Your task to perform on an android device: open app "Venmo" (install if not already installed) and go to login screen Image 0: 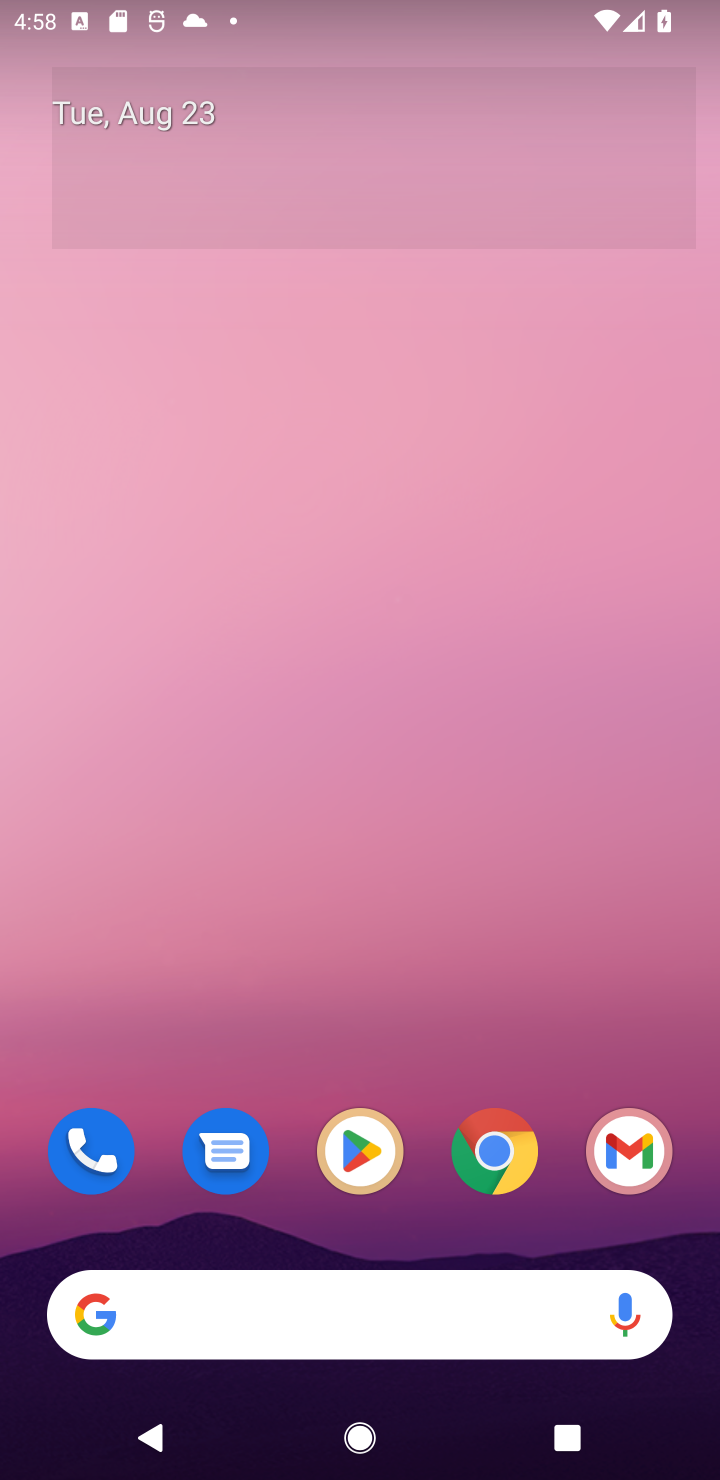
Step 0: click (356, 1155)
Your task to perform on an android device: open app "Venmo" (install if not already installed) and go to login screen Image 1: 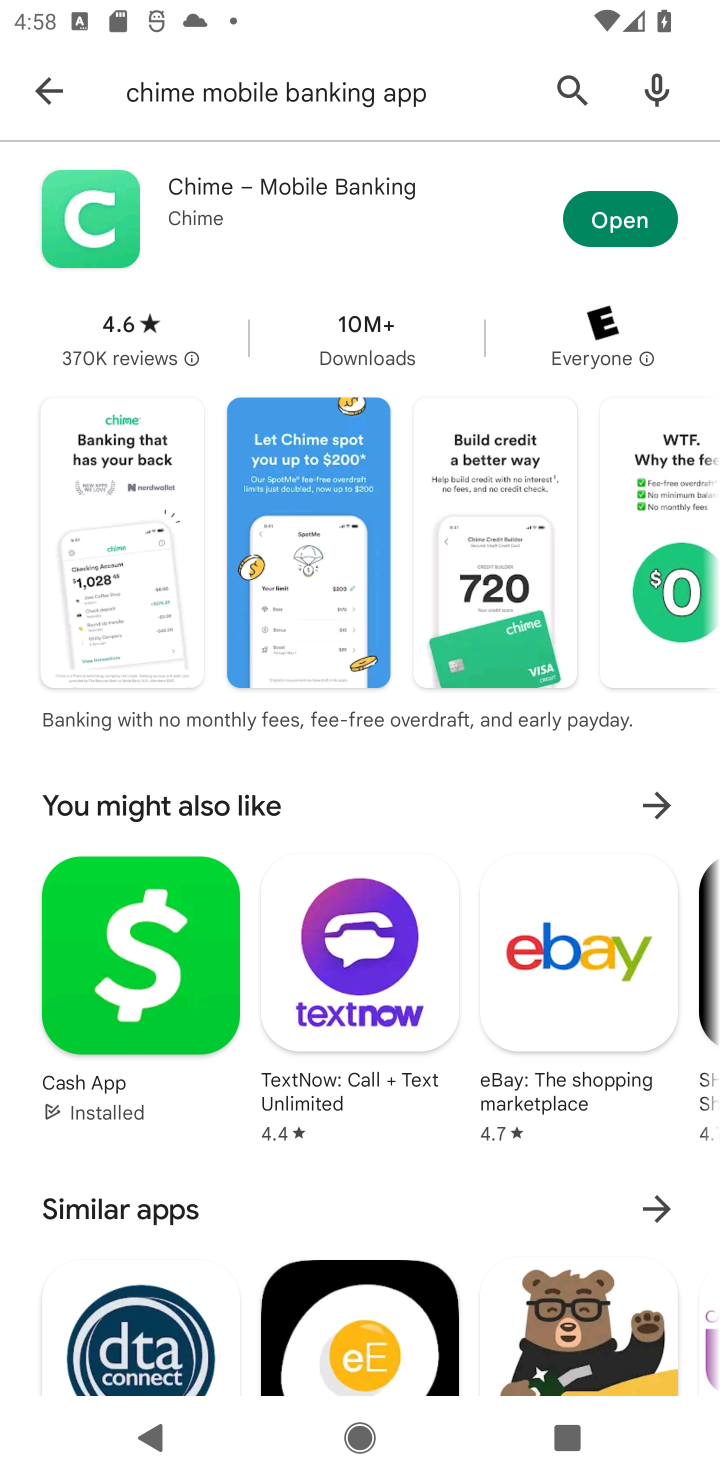
Step 1: click (571, 97)
Your task to perform on an android device: open app "Venmo" (install if not already installed) and go to login screen Image 2: 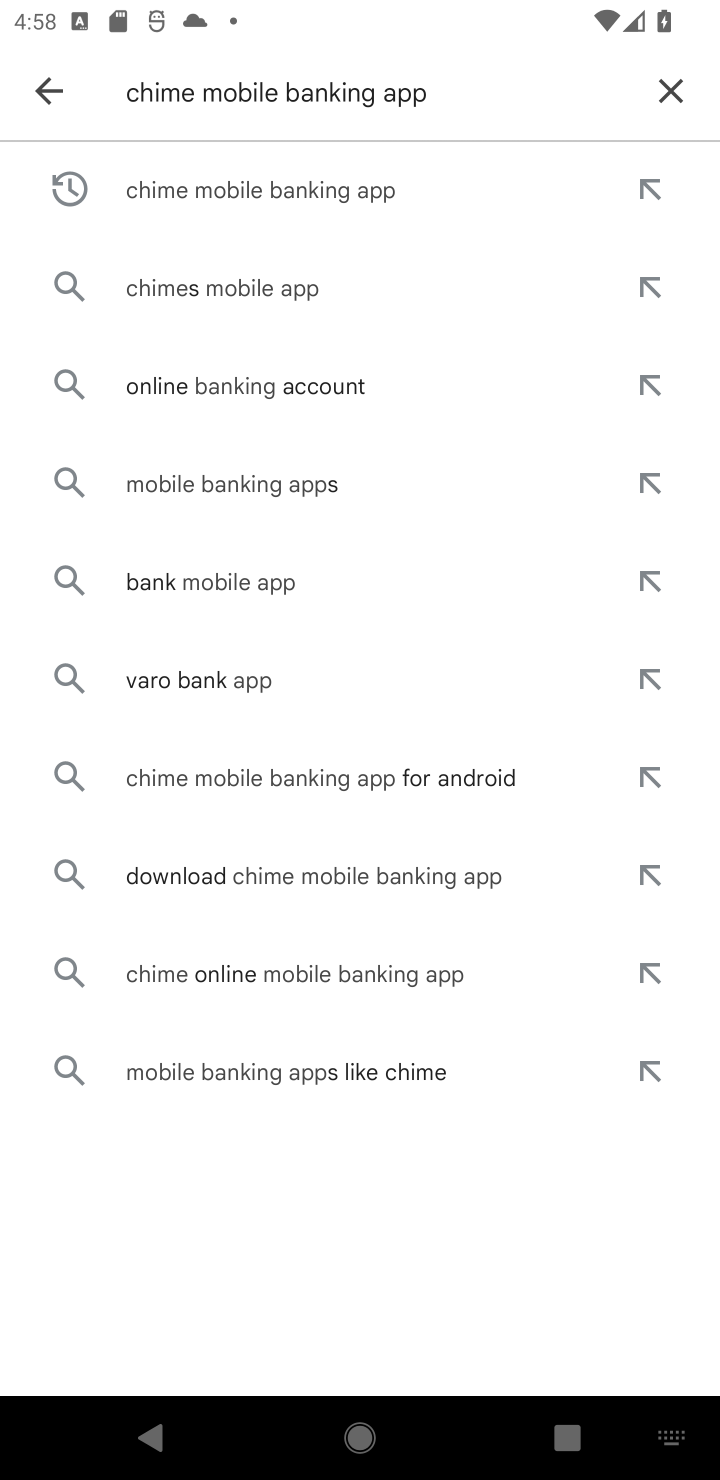
Step 2: click (660, 78)
Your task to perform on an android device: open app "Venmo" (install if not already installed) and go to login screen Image 3: 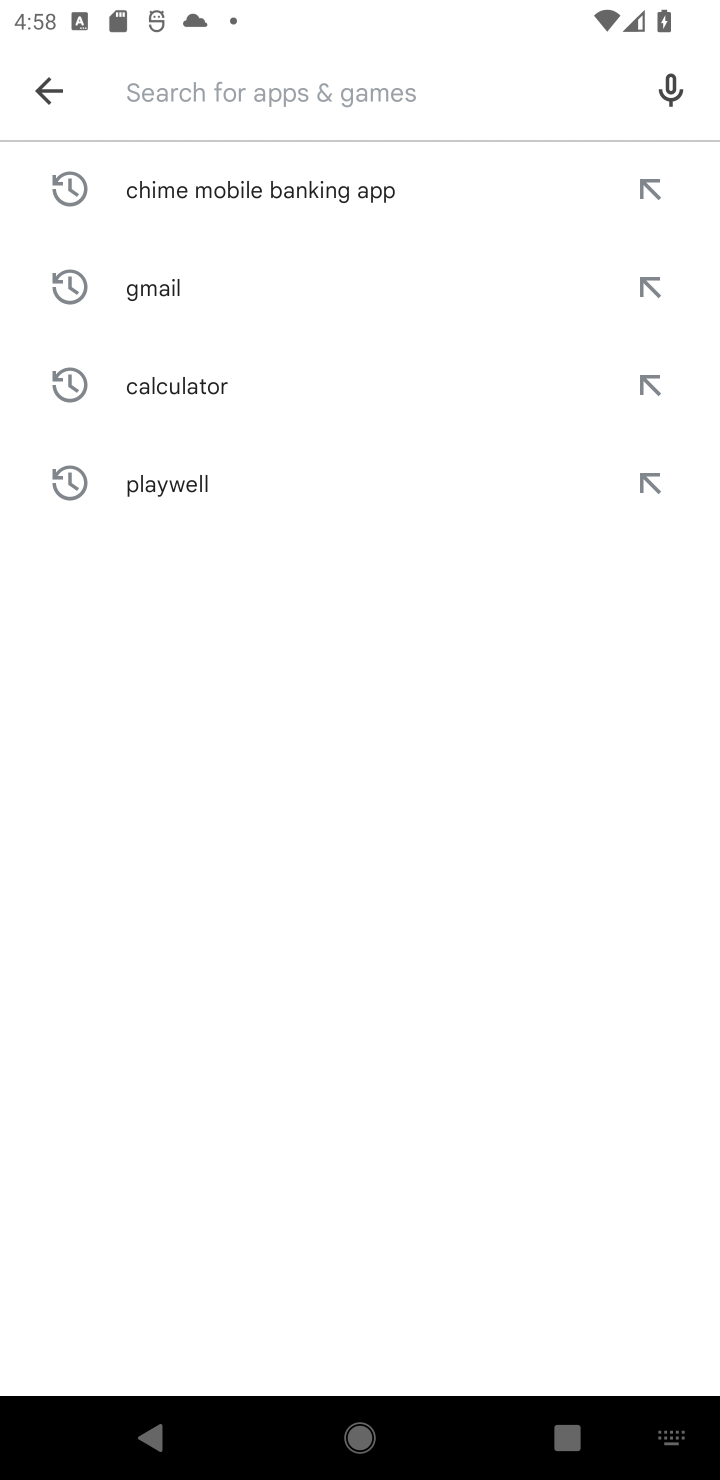
Step 3: type "Venmo"
Your task to perform on an android device: open app "Venmo" (install if not already installed) and go to login screen Image 4: 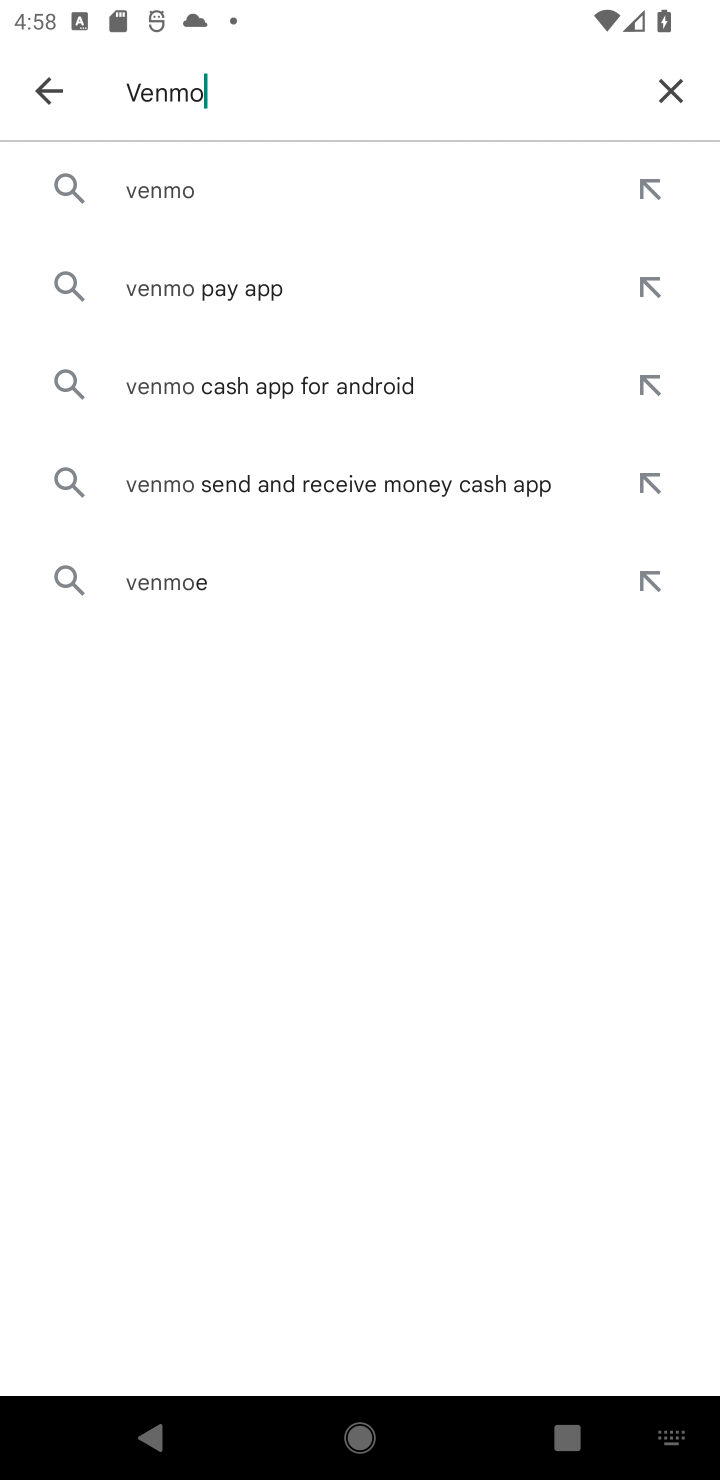
Step 4: click (170, 183)
Your task to perform on an android device: open app "Venmo" (install if not already installed) and go to login screen Image 5: 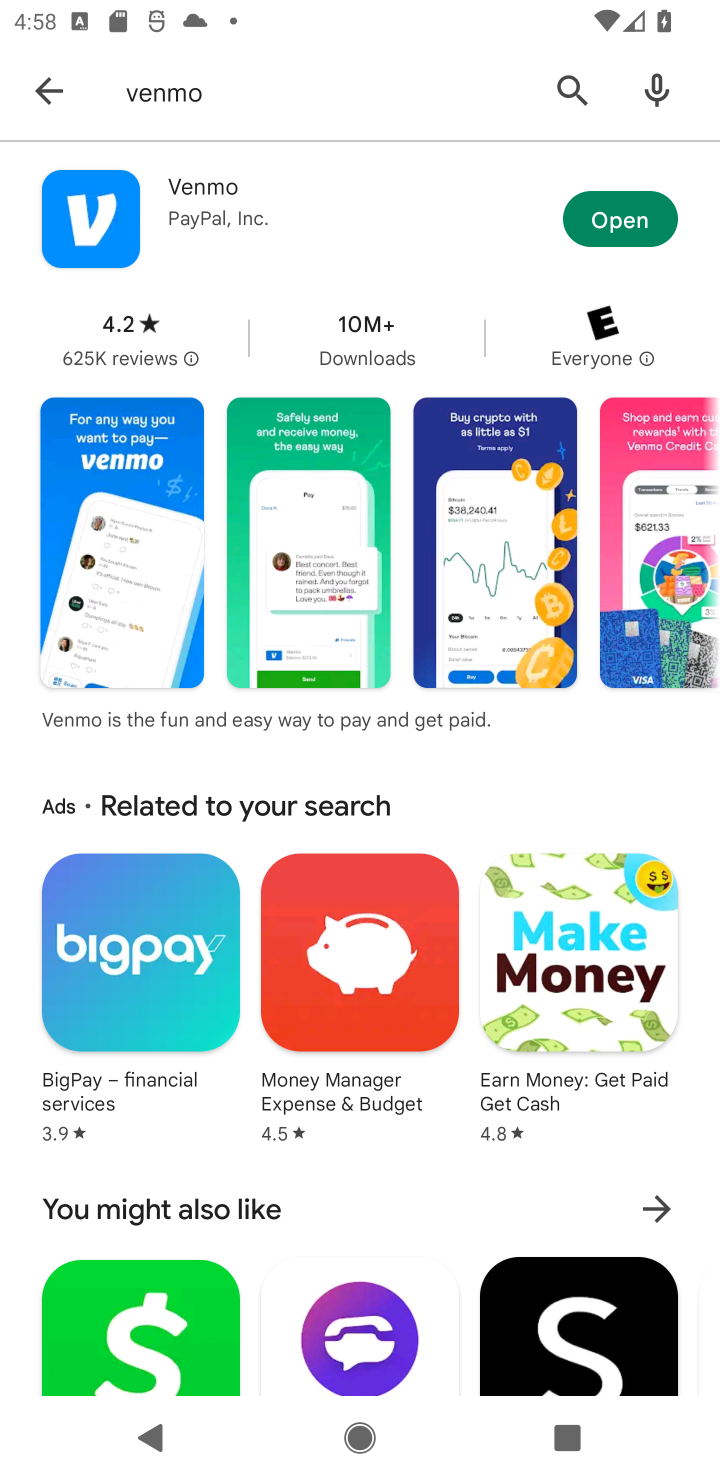
Step 5: click (614, 220)
Your task to perform on an android device: open app "Venmo" (install if not already installed) and go to login screen Image 6: 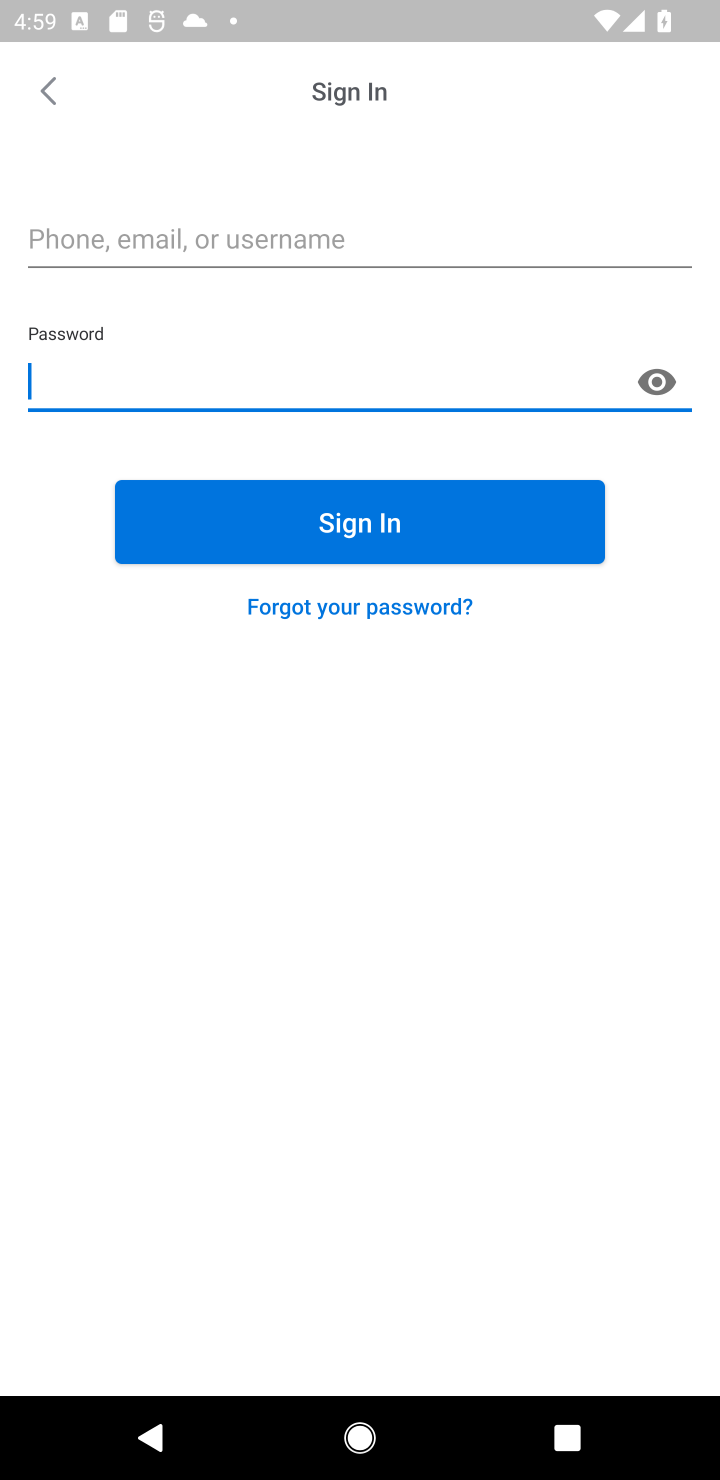
Step 6: task complete